Your task to perform on an android device: Search for vegetarian restaurants on Maps Image 0: 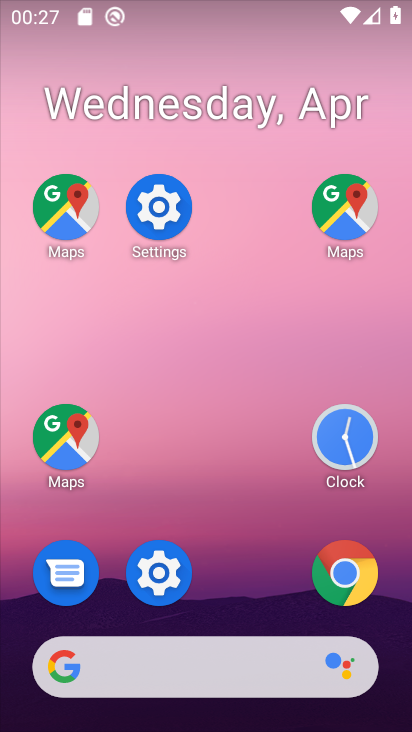
Step 0: drag from (265, 658) to (74, 83)
Your task to perform on an android device: Search for vegetarian restaurants on Maps Image 1: 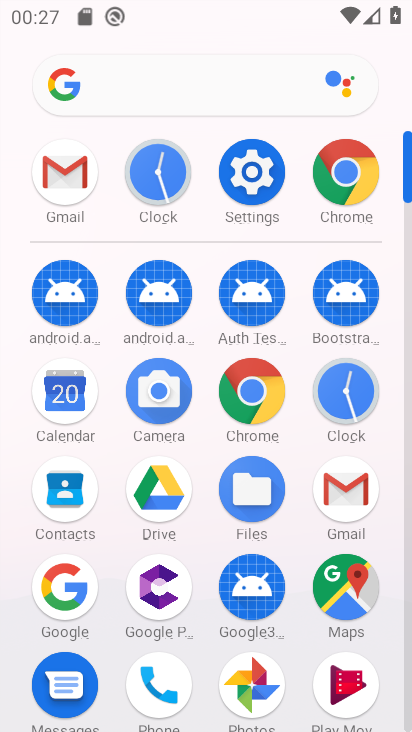
Step 1: click (341, 595)
Your task to perform on an android device: Search for vegetarian restaurants on Maps Image 2: 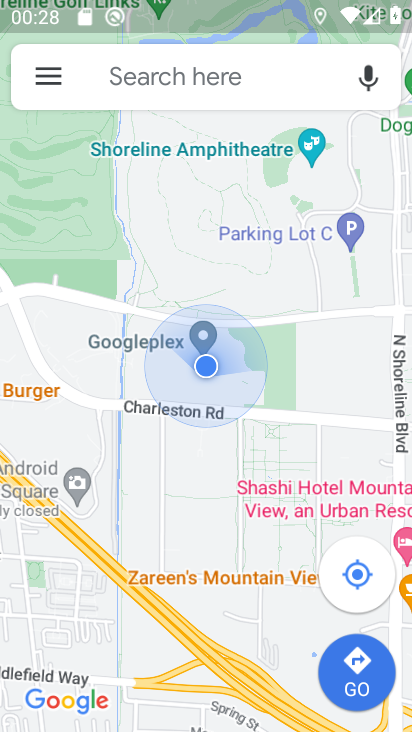
Step 2: click (134, 66)
Your task to perform on an android device: Search for vegetarian restaurants on Maps Image 3: 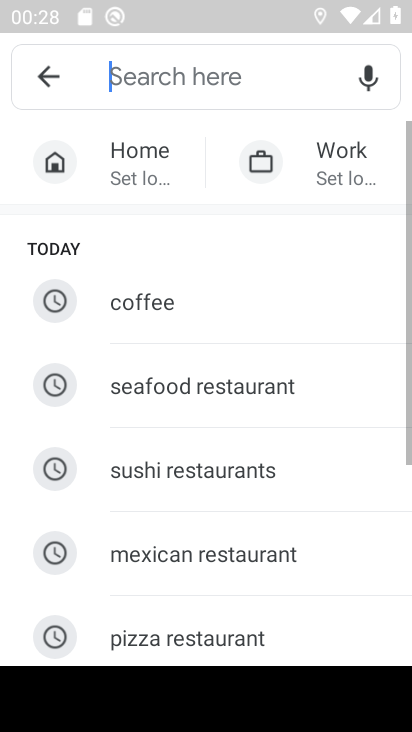
Step 3: click (121, 72)
Your task to perform on an android device: Search for vegetarian restaurants on Maps Image 4: 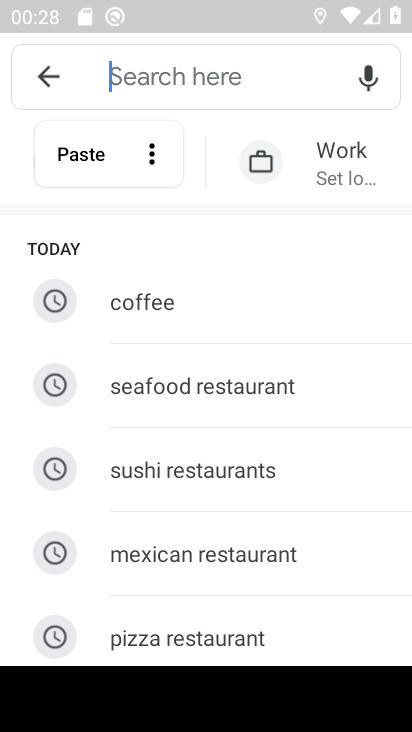
Step 4: type "vegetarian restaurants"
Your task to perform on an android device: Search for vegetarian restaurants on Maps Image 5: 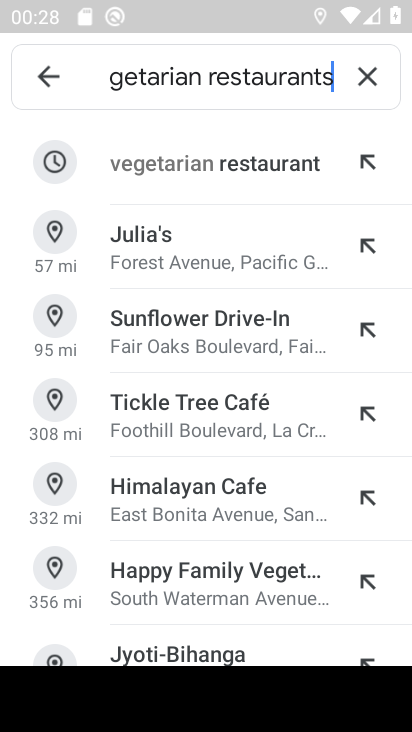
Step 5: click (198, 164)
Your task to perform on an android device: Search for vegetarian restaurants on Maps Image 6: 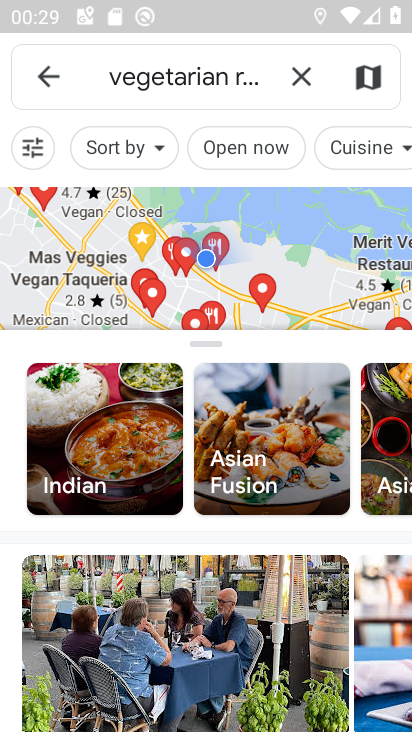
Step 6: task complete